Your task to perform on an android device: turn off priority inbox in the gmail app Image 0: 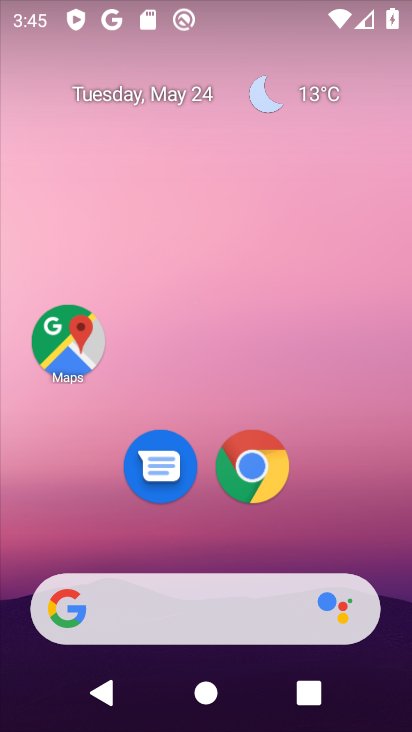
Step 0: drag from (351, 504) to (308, 147)
Your task to perform on an android device: turn off priority inbox in the gmail app Image 1: 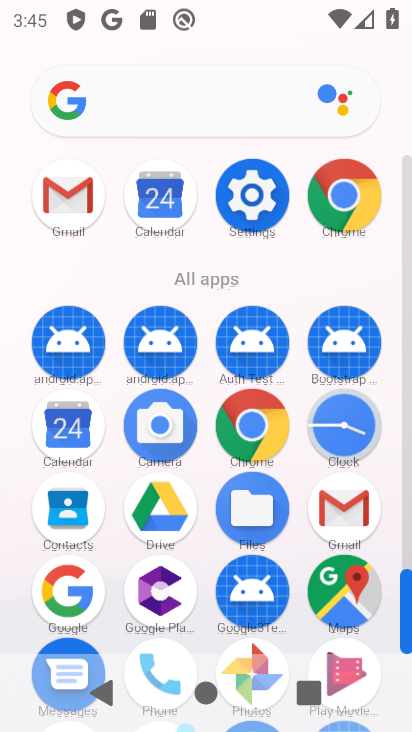
Step 1: click (332, 507)
Your task to perform on an android device: turn off priority inbox in the gmail app Image 2: 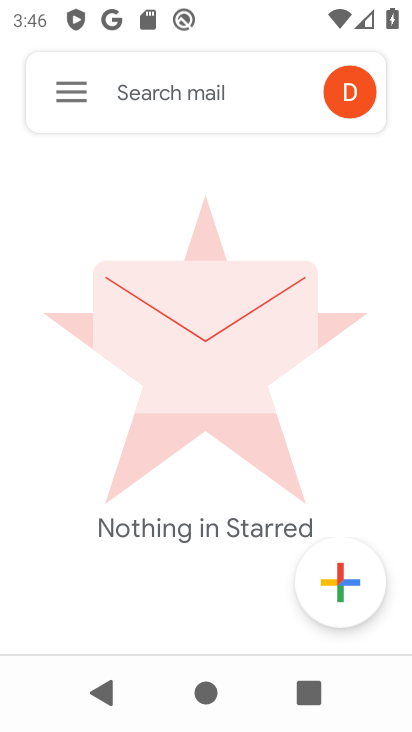
Step 2: click (79, 98)
Your task to perform on an android device: turn off priority inbox in the gmail app Image 3: 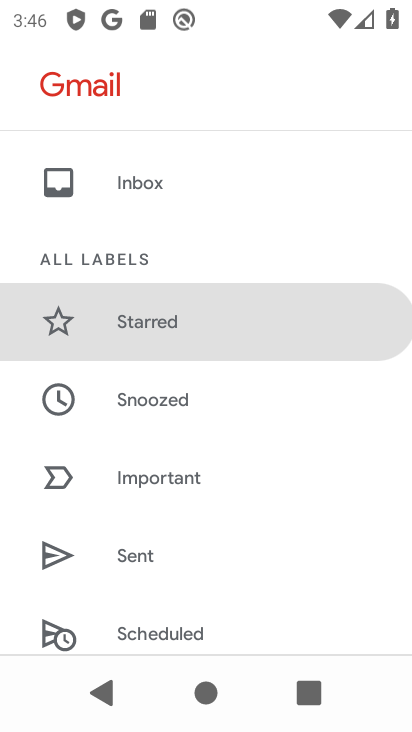
Step 3: drag from (200, 545) to (261, 171)
Your task to perform on an android device: turn off priority inbox in the gmail app Image 4: 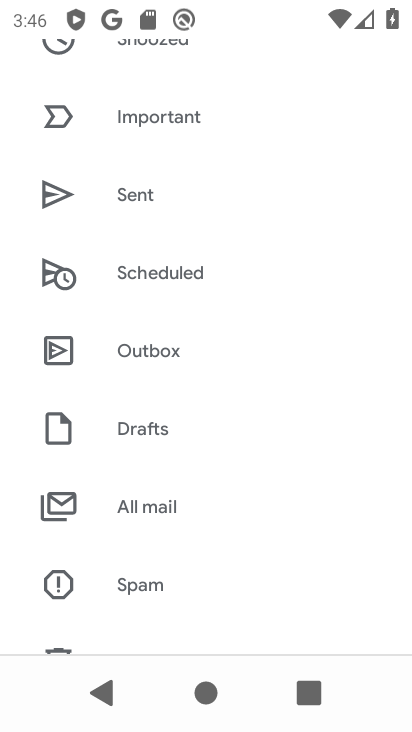
Step 4: drag from (180, 519) to (220, 182)
Your task to perform on an android device: turn off priority inbox in the gmail app Image 5: 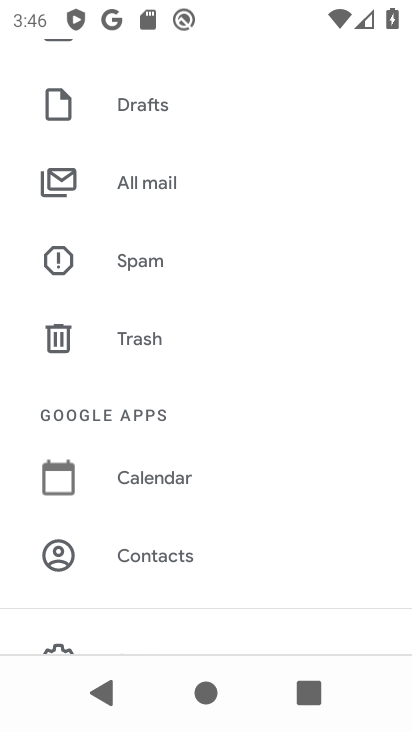
Step 5: drag from (203, 472) to (247, 144)
Your task to perform on an android device: turn off priority inbox in the gmail app Image 6: 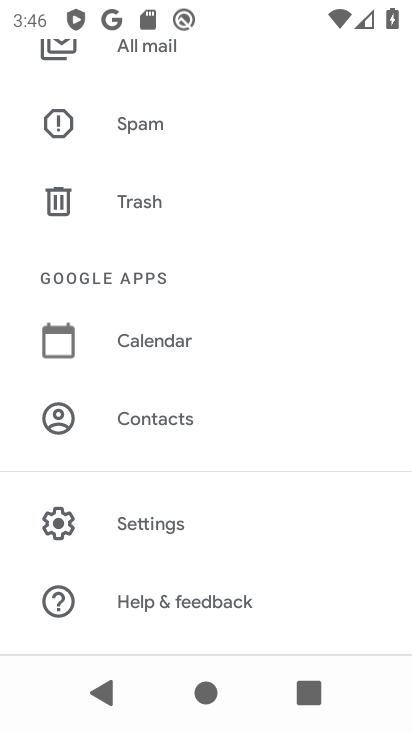
Step 6: click (164, 528)
Your task to perform on an android device: turn off priority inbox in the gmail app Image 7: 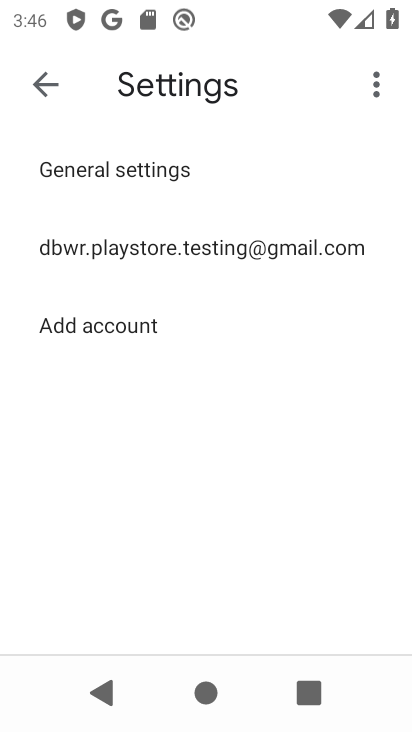
Step 7: click (207, 232)
Your task to perform on an android device: turn off priority inbox in the gmail app Image 8: 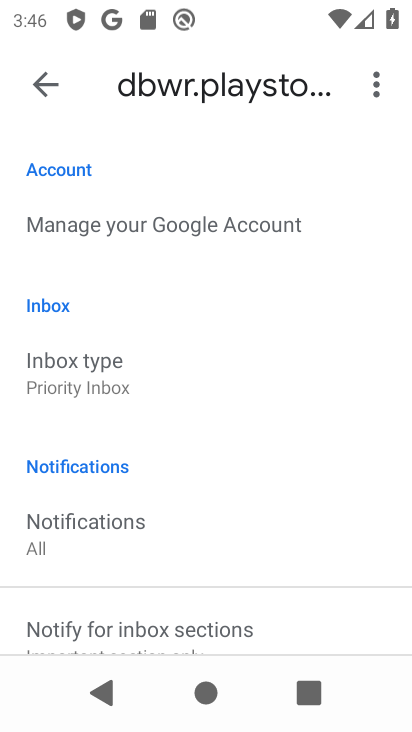
Step 8: click (111, 374)
Your task to perform on an android device: turn off priority inbox in the gmail app Image 9: 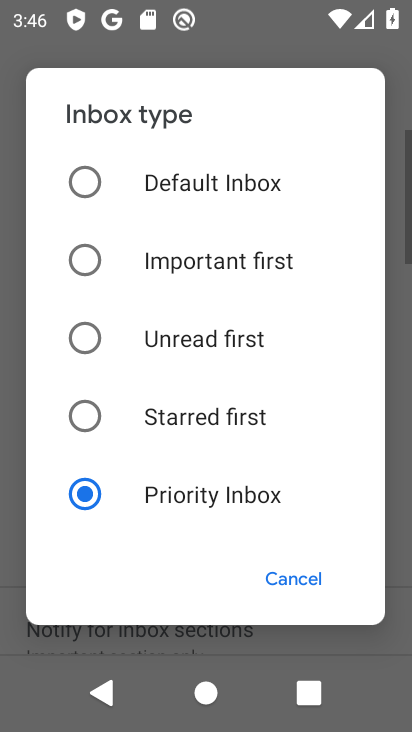
Step 9: task complete